Your task to perform on an android device: turn on sleep mode Image 0: 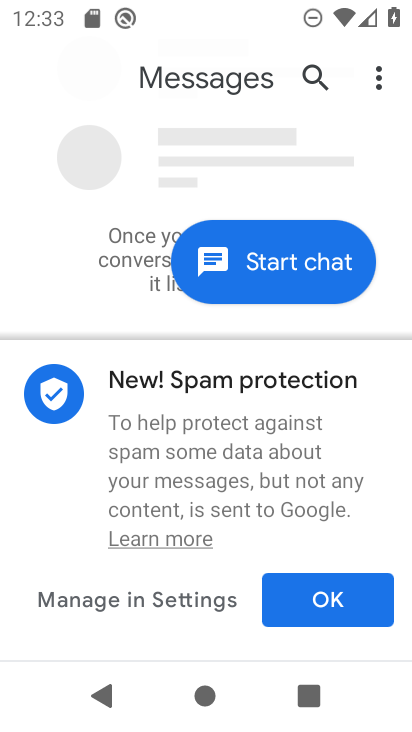
Step 0: press back button
Your task to perform on an android device: turn on sleep mode Image 1: 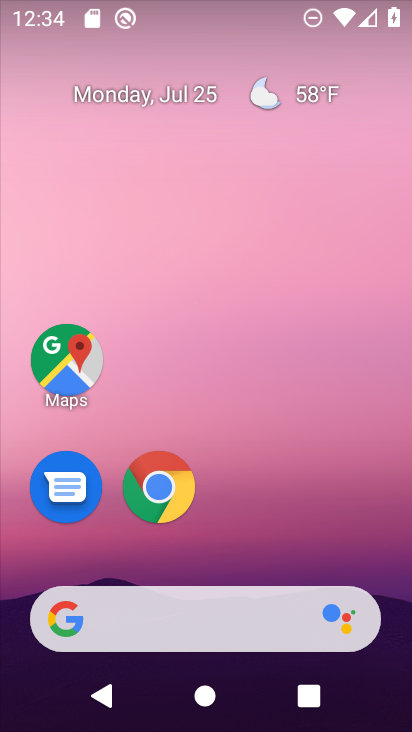
Step 1: drag from (211, 463) to (312, 7)
Your task to perform on an android device: turn on sleep mode Image 2: 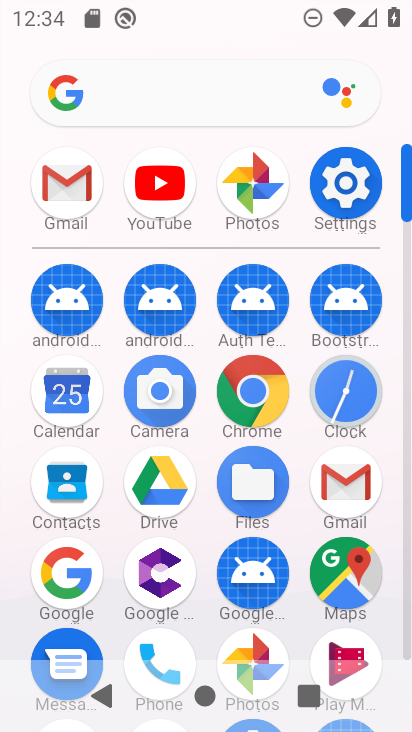
Step 2: click (329, 199)
Your task to perform on an android device: turn on sleep mode Image 3: 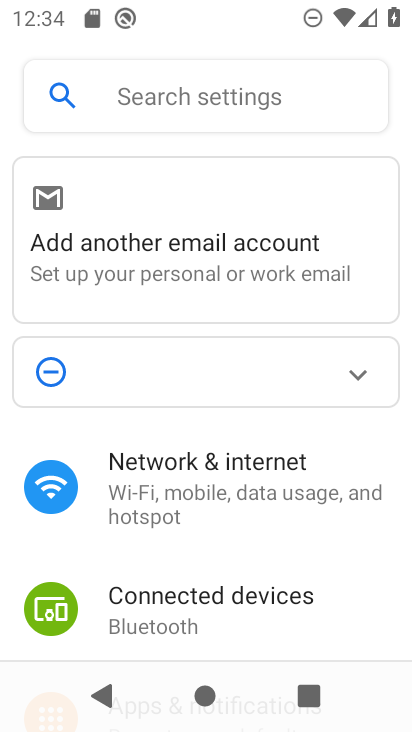
Step 3: click (153, 92)
Your task to perform on an android device: turn on sleep mode Image 4: 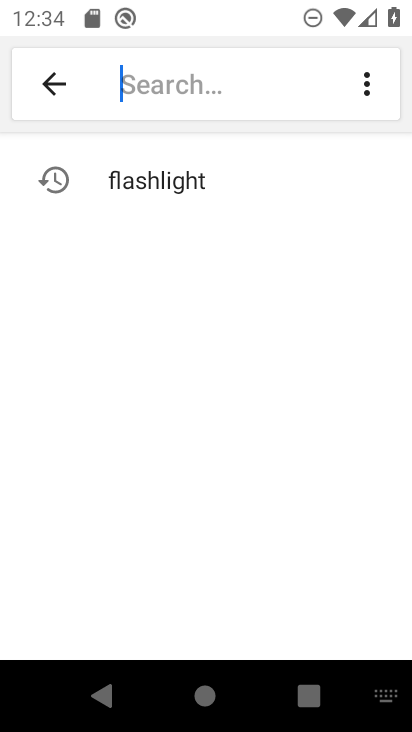
Step 4: type "sleep mode"
Your task to perform on an android device: turn on sleep mode Image 5: 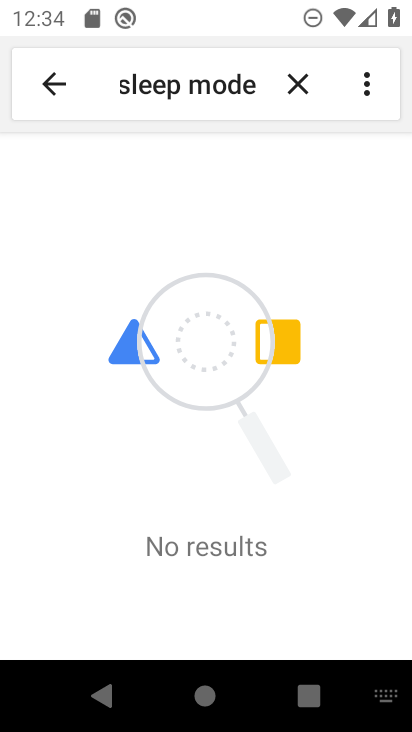
Step 5: task complete